Your task to perform on an android device: Is it going to rain today? Image 0: 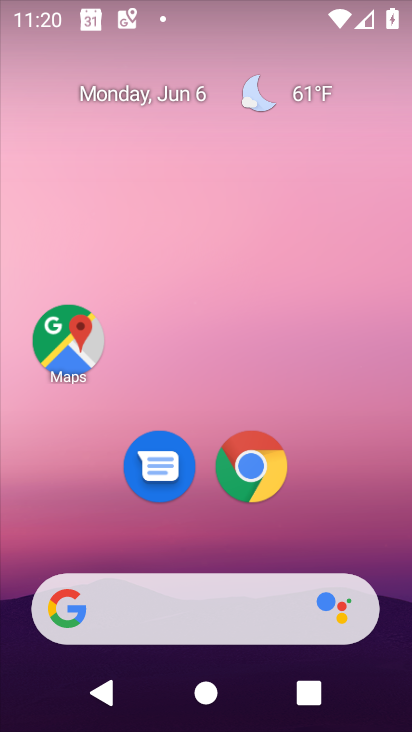
Step 0: press home button
Your task to perform on an android device: Is it going to rain today? Image 1: 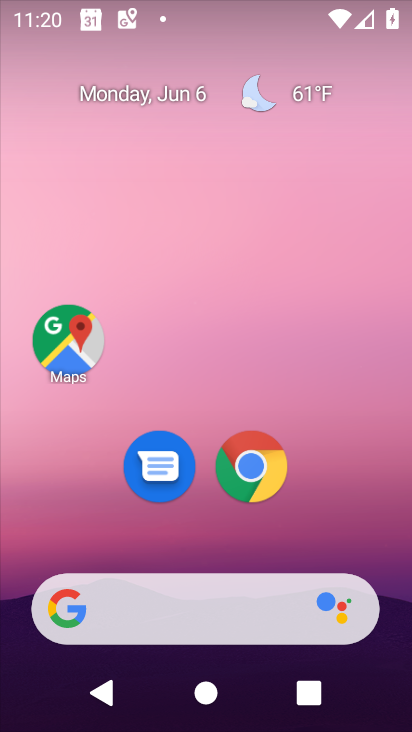
Step 1: click (242, 478)
Your task to perform on an android device: Is it going to rain today? Image 2: 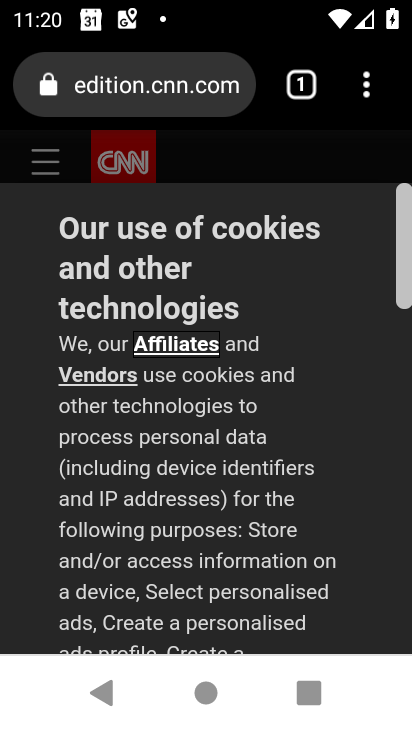
Step 2: click (136, 73)
Your task to perform on an android device: Is it going to rain today? Image 3: 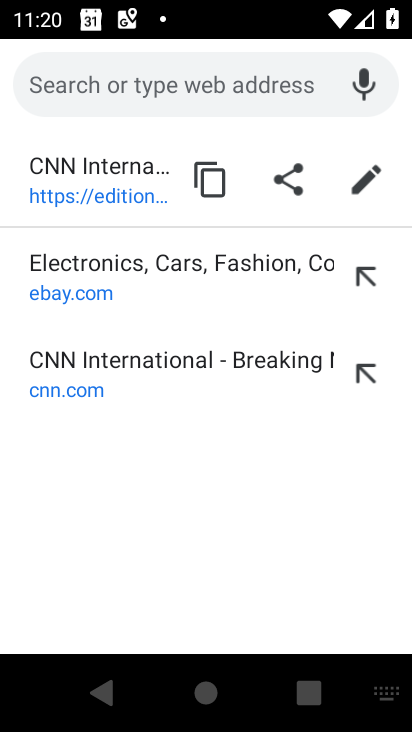
Step 3: type "Is it going to rain today?"
Your task to perform on an android device: Is it going to rain today? Image 4: 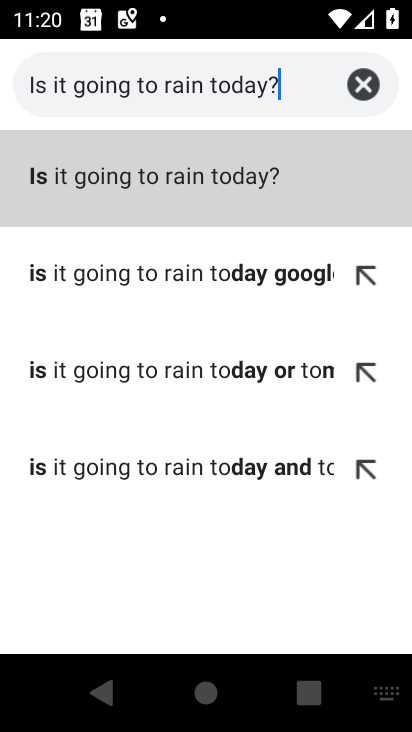
Step 4: click (182, 176)
Your task to perform on an android device: Is it going to rain today? Image 5: 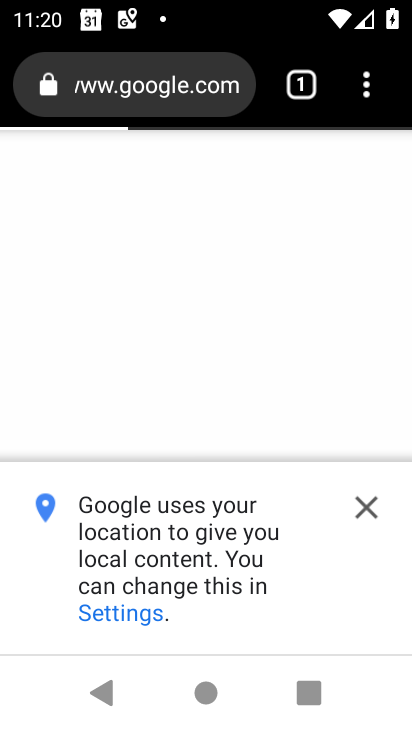
Step 5: task complete